Your task to perform on an android device: turn off wifi Image 0: 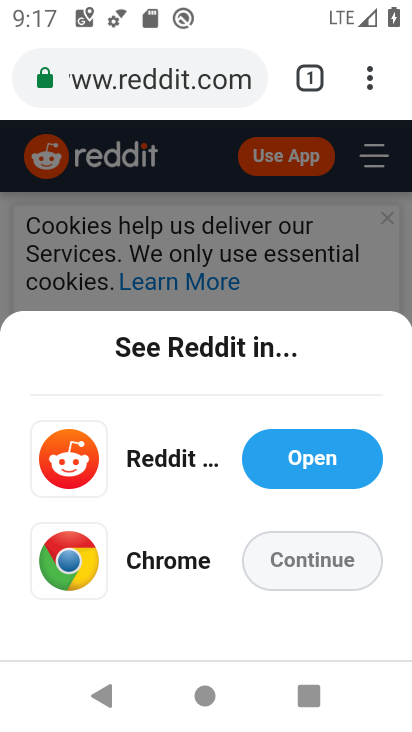
Step 0: press home button
Your task to perform on an android device: turn off wifi Image 1: 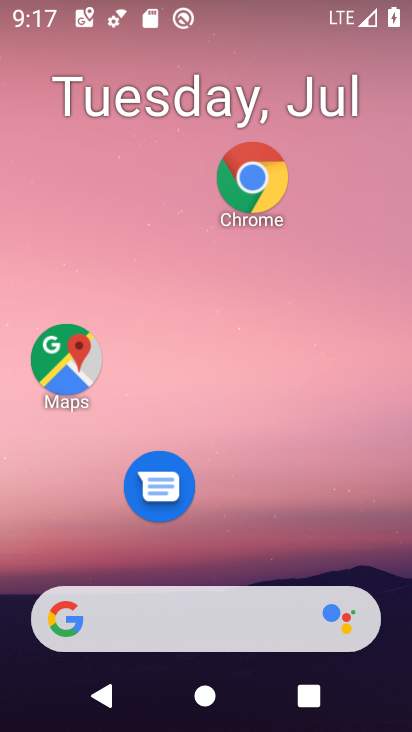
Step 1: drag from (254, 637) to (338, 108)
Your task to perform on an android device: turn off wifi Image 2: 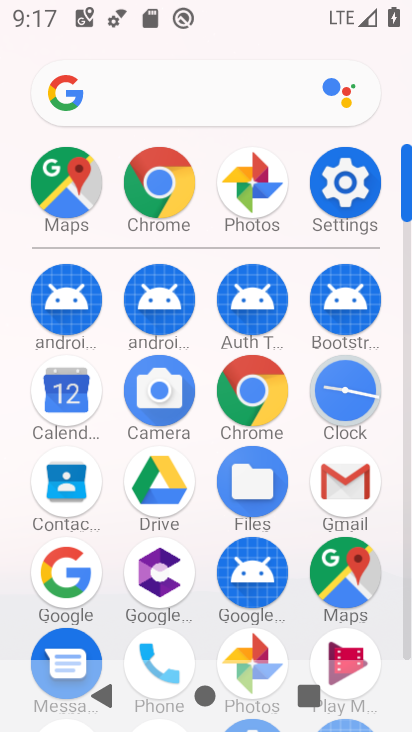
Step 2: click (337, 173)
Your task to perform on an android device: turn off wifi Image 3: 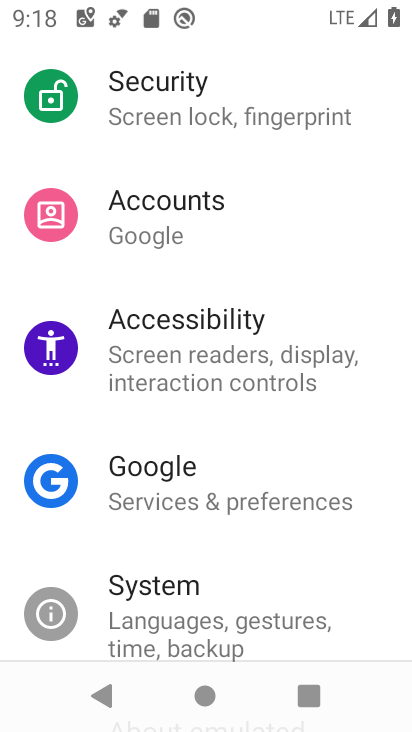
Step 3: drag from (247, 218) to (238, 585)
Your task to perform on an android device: turn off wifi Image 4: 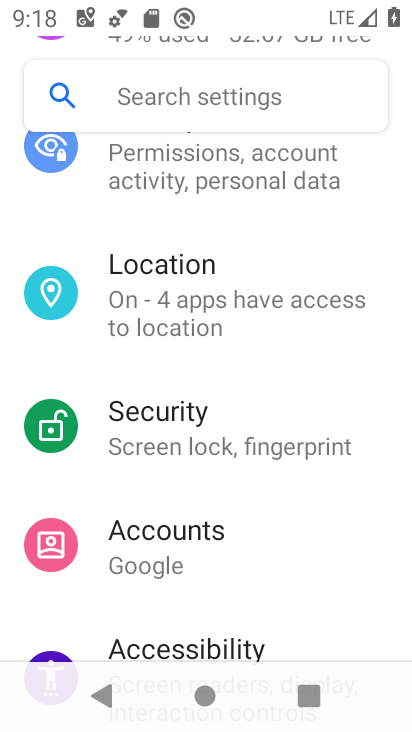
Step 4: drag from (186, 218) to (226, 577)
Your task to perform on an android device: turn off wifi Image 5: 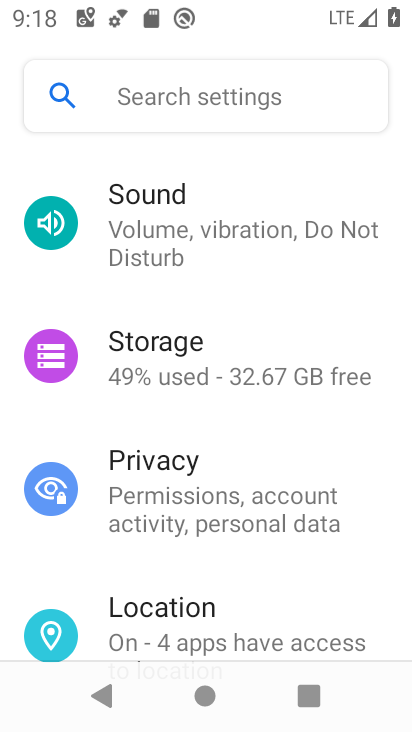
Step 5: drag from (264, 286) to (237, 532)
Your task to perform on an android device: turn off wifi Image 6: 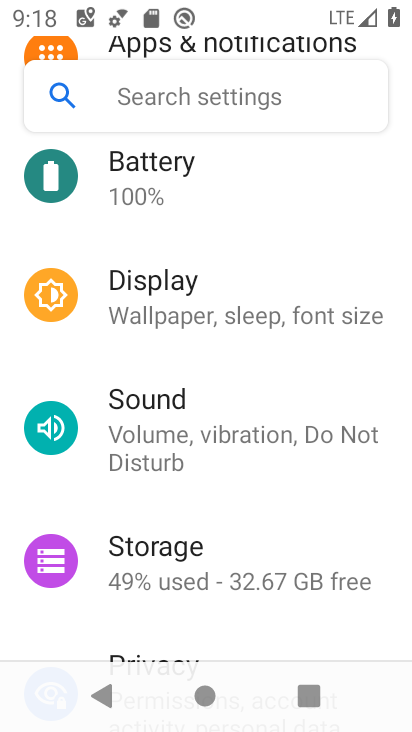
Step 6: drag from (272, 335) to (201, 624)
Your task to perform on an android device: turn off wifi Image 7: 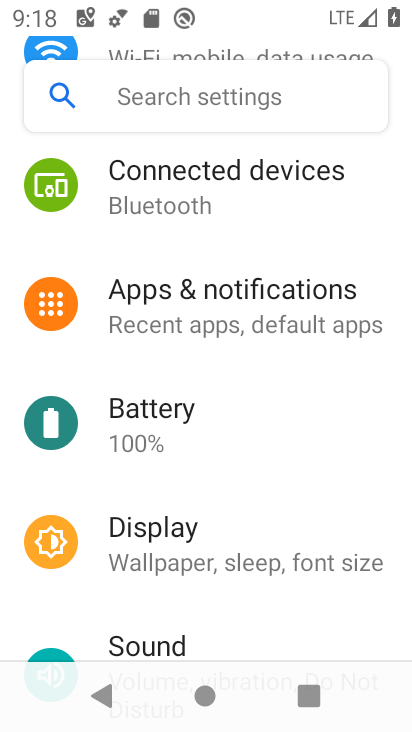
Step 7: drag from (309, 208) to (169, 615)
Your task to perform on an android device: turn off wifi Image 8: 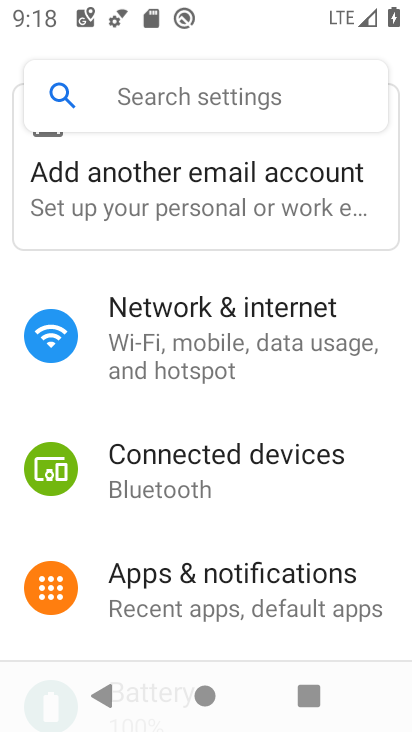
Step 8: click (265, 351)
Your task to perform on an android device: turn off wifi Image 9: 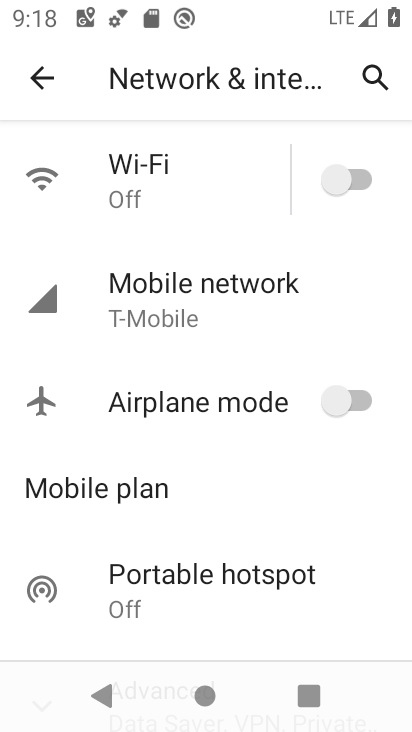
Step 9: task complete